Your task to perform on an android device: turn off smart reply in the gmail app Image 0: 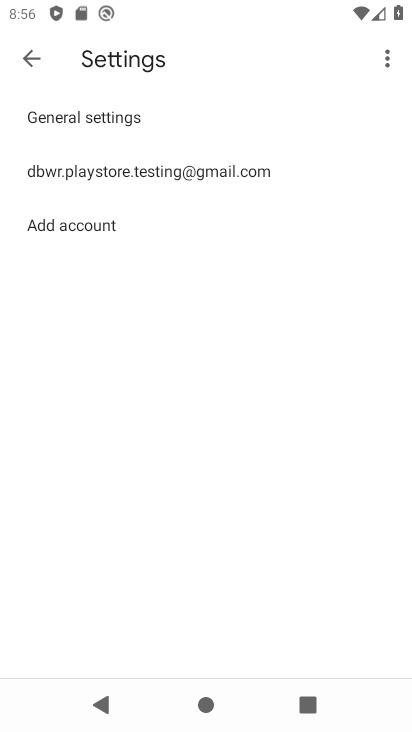
Step 0: press home button
Your task to perform on an android device: turn off smart reply in the gmail app Image 1: 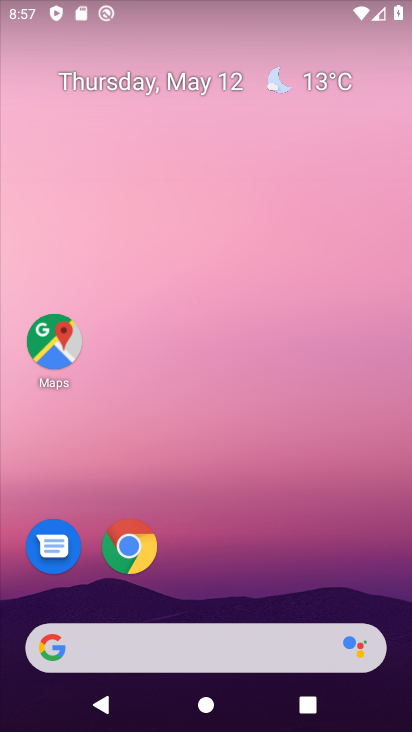
Step 1: drag from (215, 607) to (251, 133)
Your task to perform on an android device: turn off smart reply in the gmail app Image 2: 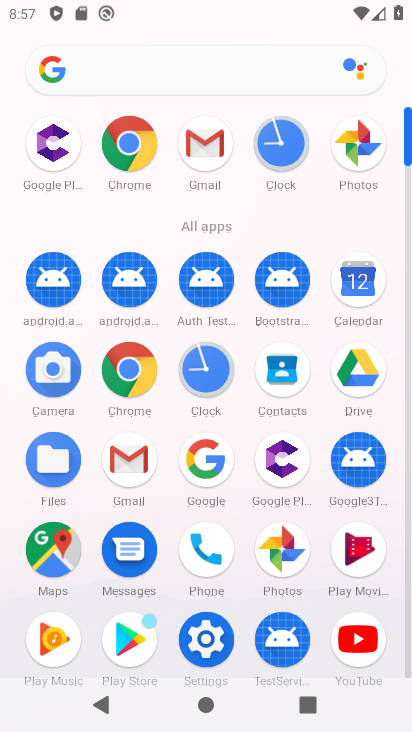
Step 2: click (207, 146)
Your task to perform on an android device: turn off smart reply in the gmail app Image 3: 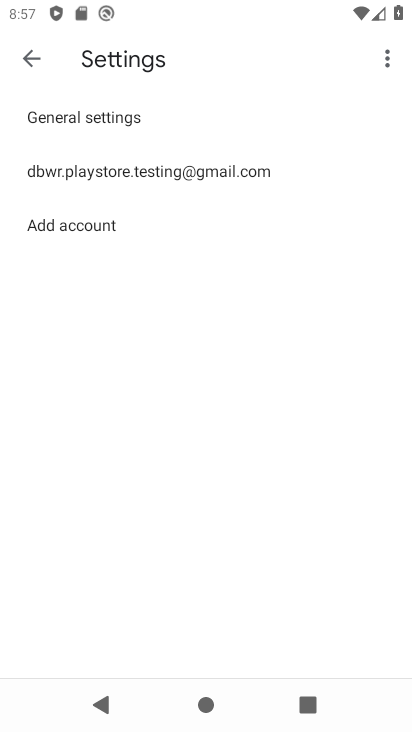
Step 3: click (214, 169)
Your task to perform on an android device: turn off smart reply in the gmail app Image 4: 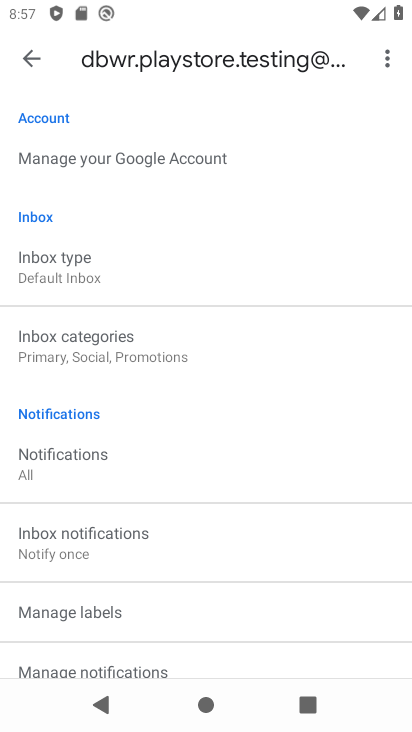
Step 4: drag from (253, 617) to (289, 157)
Your task to perform on an android device: turn off smart reply in the gmail app Image 5: 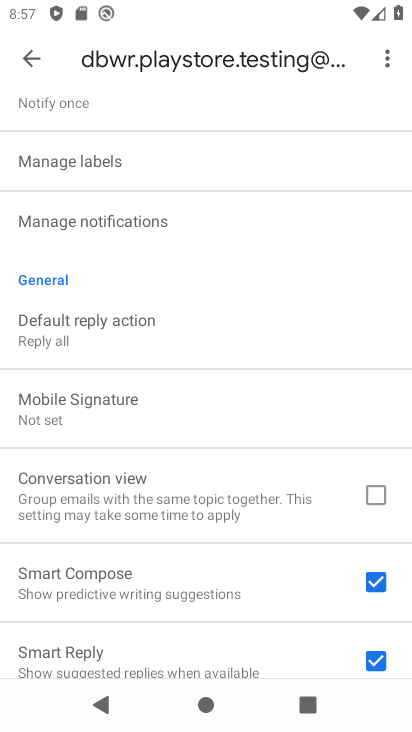
Step 5: click (375, 659)
Your task to perform on an android device: turn off smart reply in the gmail app Image 6: 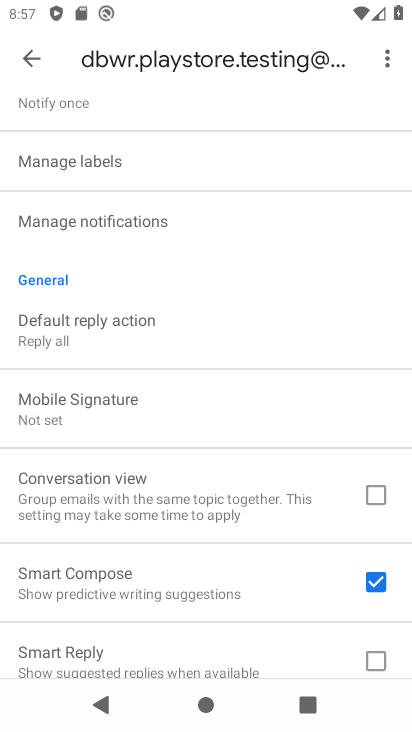
Step 6: task complete